Your task to perform on an android device: Do I have any events tomorrow? Image 0: 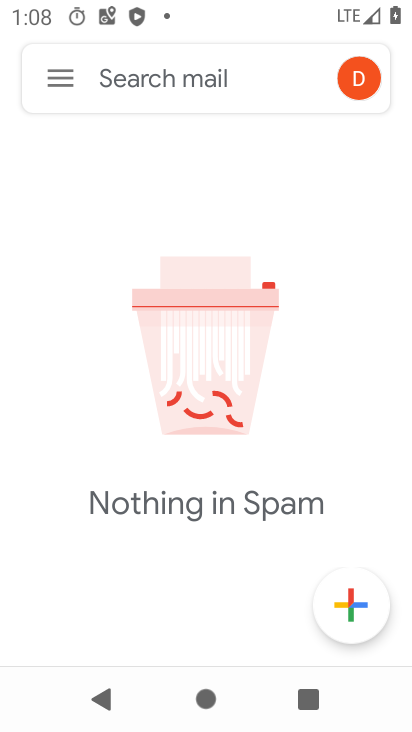
Step 0: press home button
Your task to perform on an android device: Do I have any events tomorrow? Image 1: 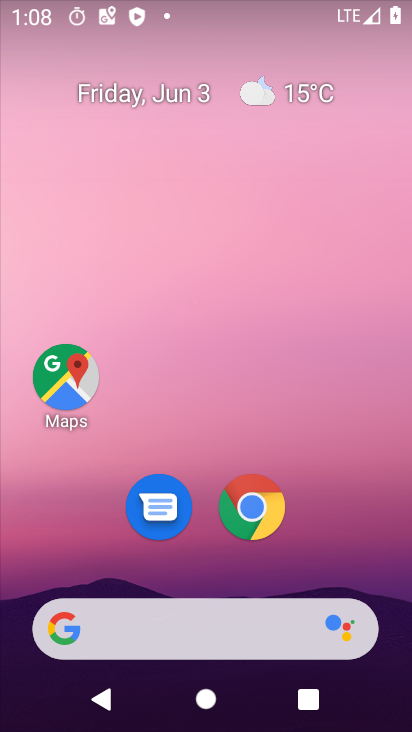
Step 1: drag from (409, 654) to (190, 66)
Your task to perform on an android device: Do I have any events tomorrow? Image 2: 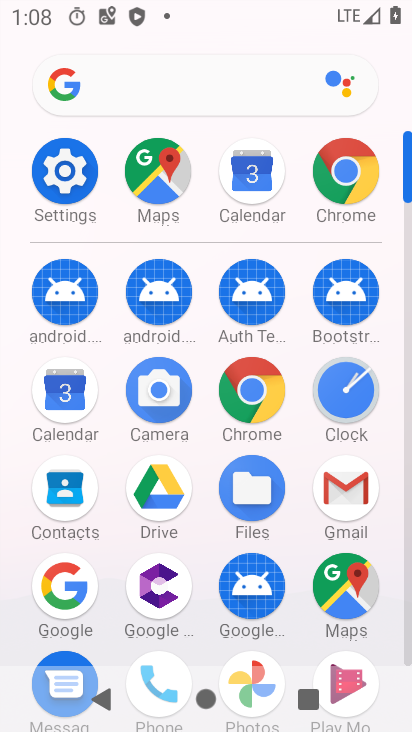
Step 2: click (49, 415)
Your task to perform on an android device: Do I have any events tomorrow? Image 3: 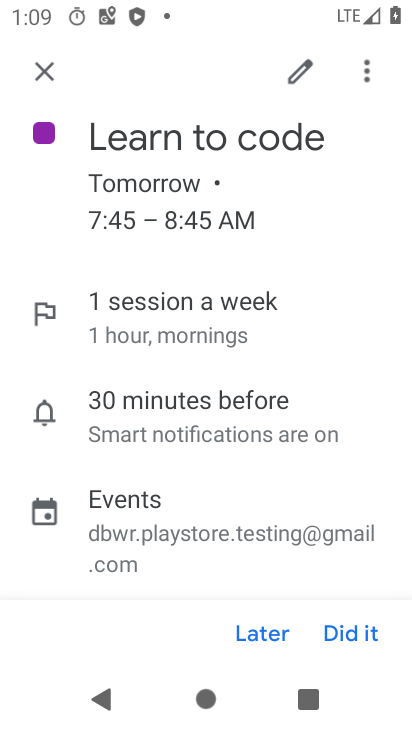
Step 3: task complete